Your task to perform on an android device: Turn off the flashlight Image 0: 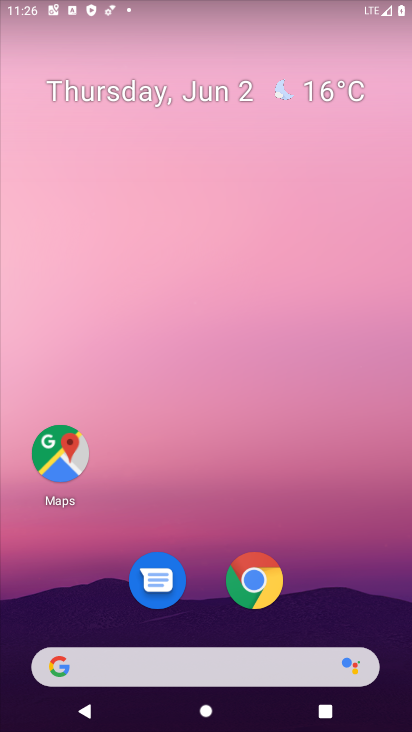
Step 0: drag from (272, 16) to (288, 567)
Your task to perform on an android device: Turn off the flashlight Image 1: 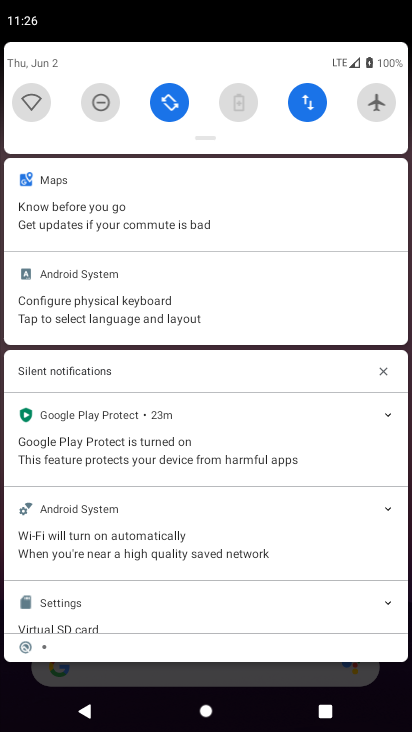
Step 1: task complete